Your task to perform on an android device: open chrome privacy settings Image 0: 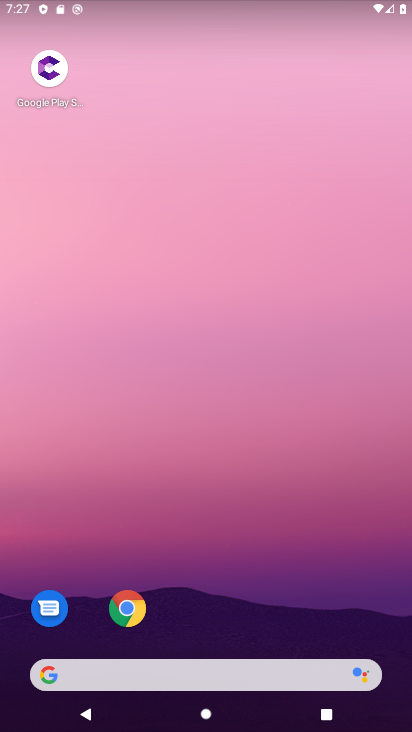
Step 0: drag from (239, 407) to (239, 198)
Your task to perform on an android device: open chrome privacy settings Image 1: 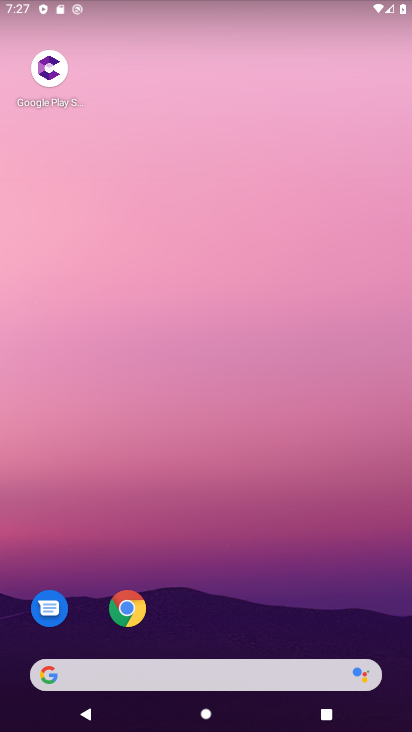
Step 1: drag from (303, 643) to (273, 95)
Your task to perform on an android device: open chrome privacy settings Image 2: 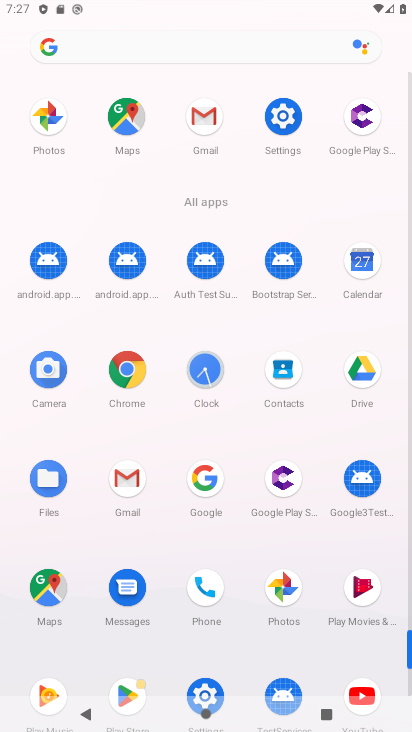
Step 2: click (279, 113)
Your task to perform on an android device: open chrome privacy settings Image 3: 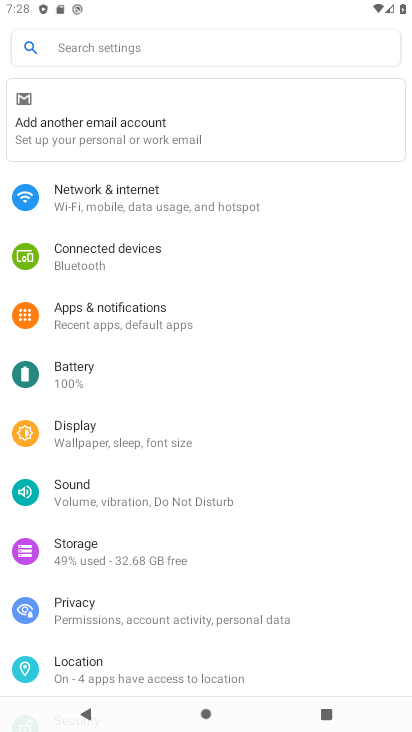
Step 3: click (103, 604)
Your task to perform on an android device: open chrome privacy settings Image 4: 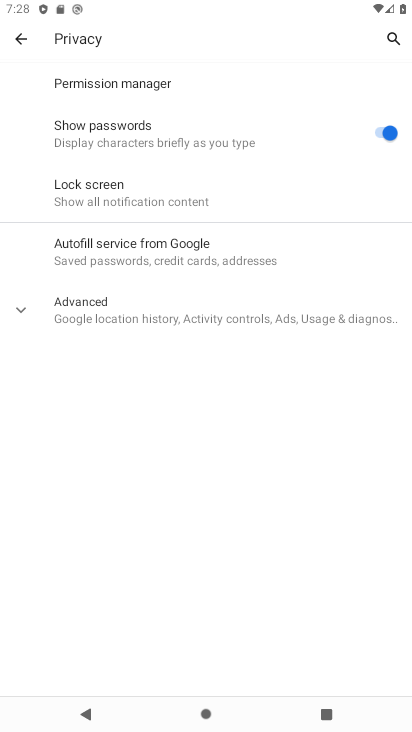
Step 4: task complete